Your task to perform on an android device: change timer sound Image 0: 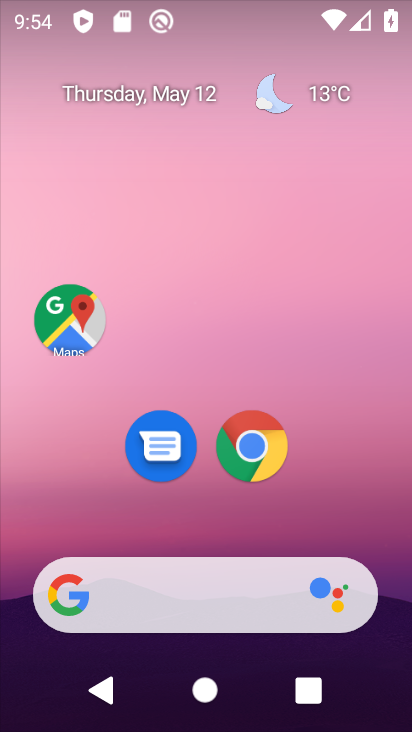
Step 0: drag from (204, 508) to (231, 72)
Your task to perform on an android device: change timer sound Image 1: 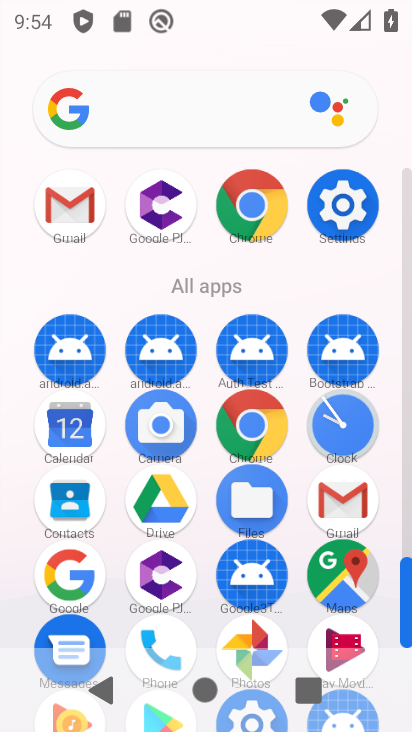
Step 1: click (334, 419)
Your task to perform on an android device: change timer sound Image 2: 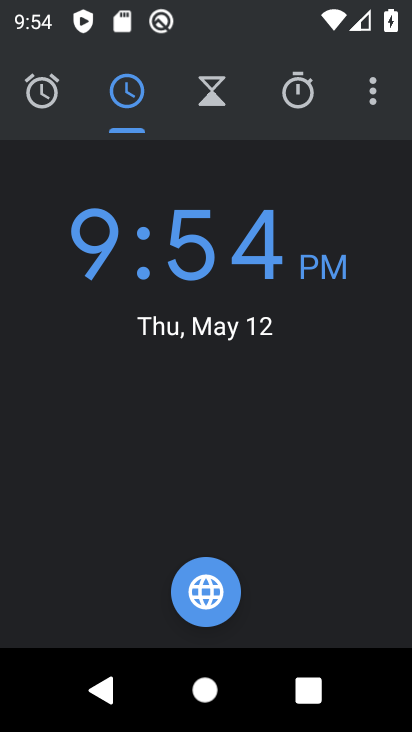
Step 2: click (369, 85)
Your task to perform on an android device: change timer sound Image 3: 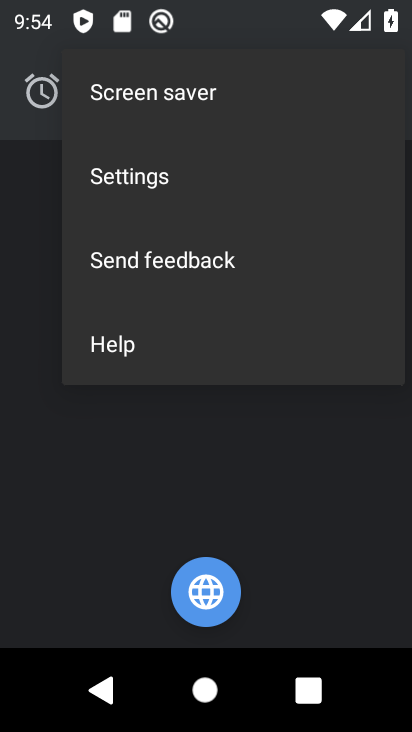
Step 3: click (172, 172)
Your task to perform on an android device: change timer sound Image 4: 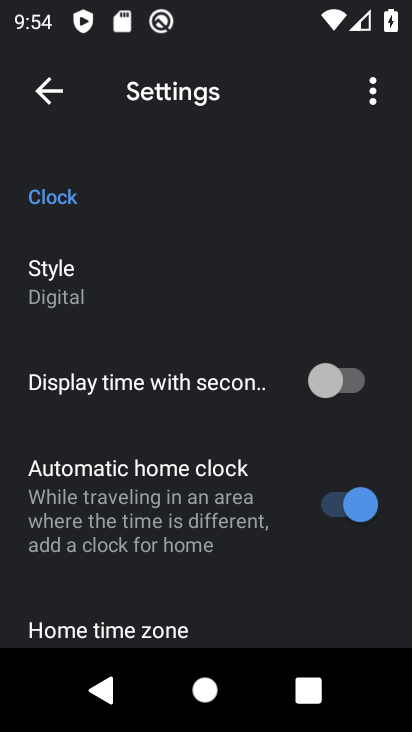
Step 4: drag from (201, 547) to (224, 114)
Your task to perform on an android device: change timer sound Image 5: 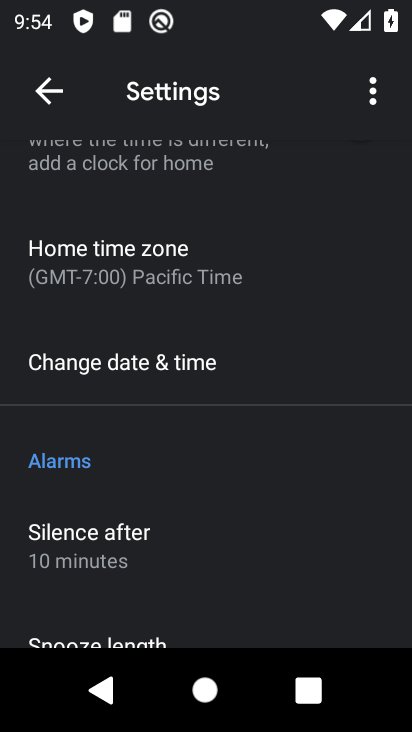
Step 5: drag from (159, 530) to (244, 15)
Your task to perform on an android device: change timer sound Image 6: 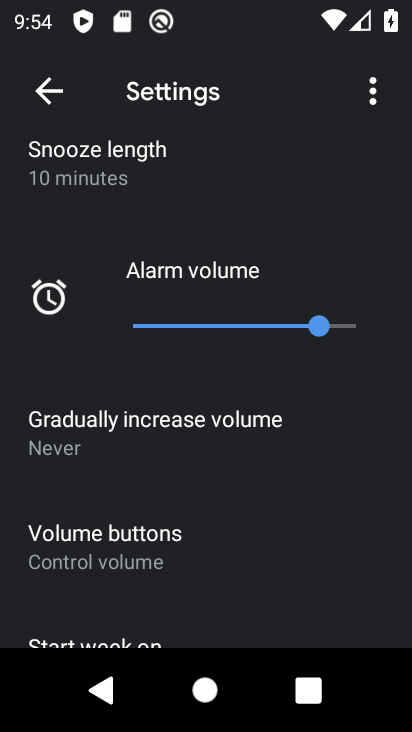
Step 6: drag from (207, 550) to (240, 154)
Your task to perform on an android device: change timer sound Image 7: 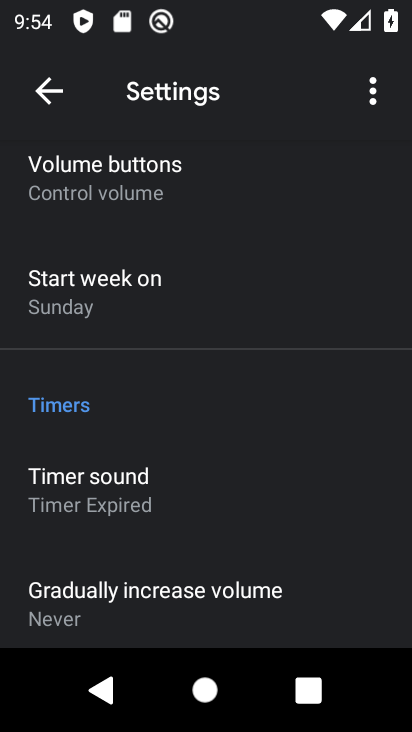
Step 7: click (136, 504)
Your task to perform on an android device: change timer sound Image 8: 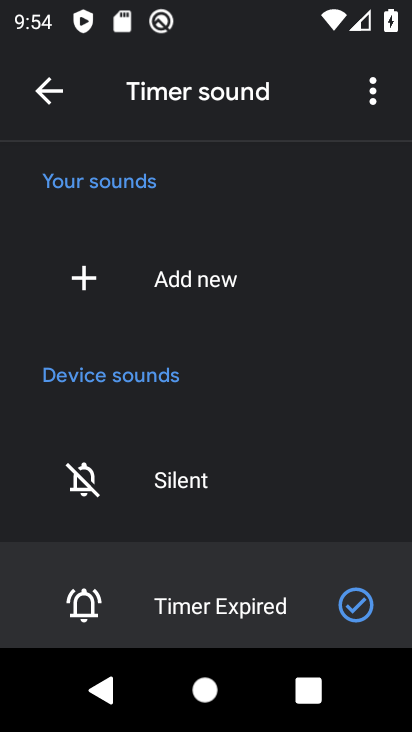
Step 8: drag from (146, 604) to (214, 271)
Your task to perform on an android device: change timer sound Image 9: 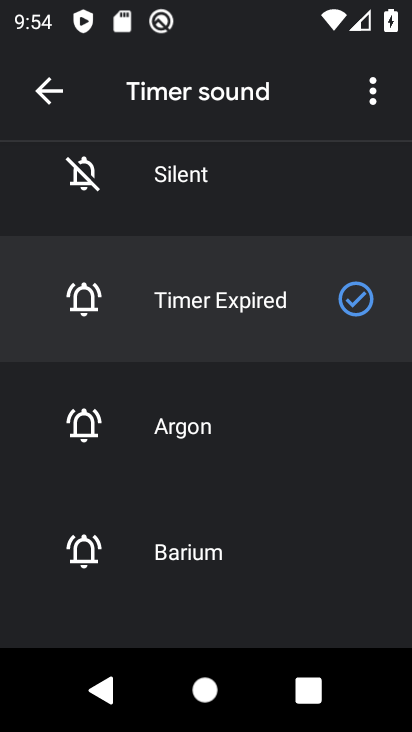
Step 9: click (217, 435)
Your task to perform on an android device: change timer sound Image 10: 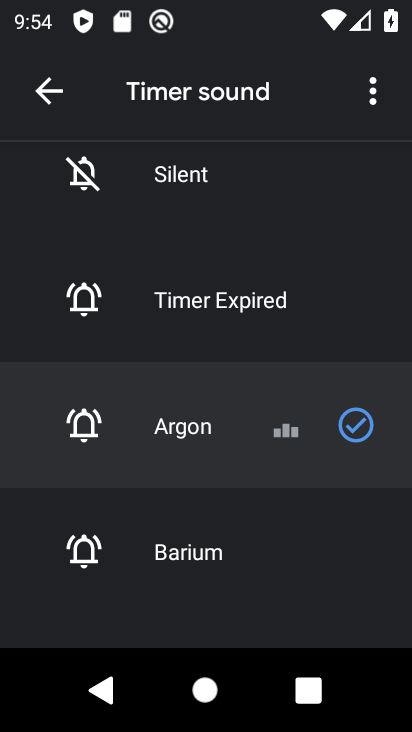
Step 10: task complete